Your task to perform on an android device: Open battery settings Image 0: 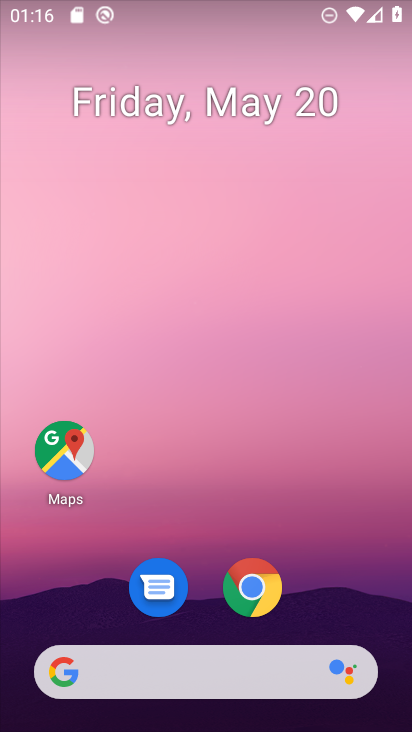
Step 0: drag from (368, 622) to (377, 219)
Your task to perform on an android device: Open battery settings Image 1: 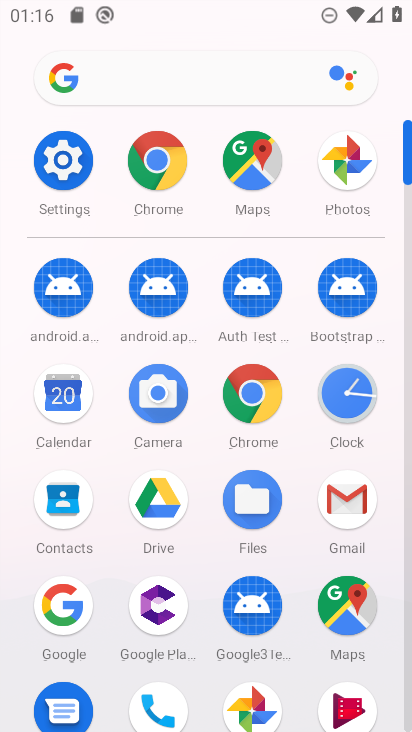
Step 1: click (65, 191)
Your task to perform on an android device: Open battery settings Image 2: 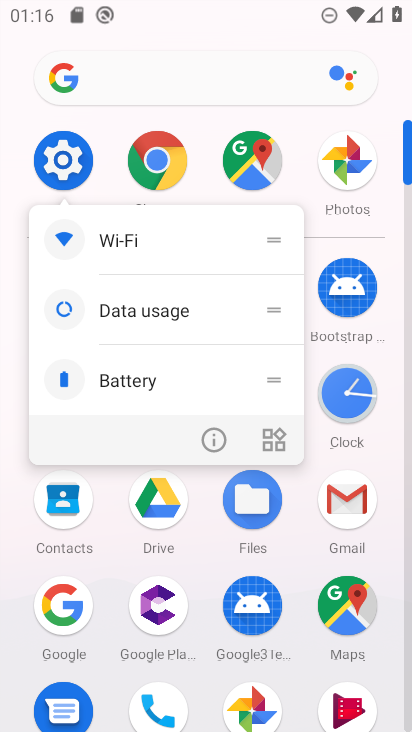
Step 2: click (81, 170)
Your task to perform on an android device: Open battery settings Image 3: 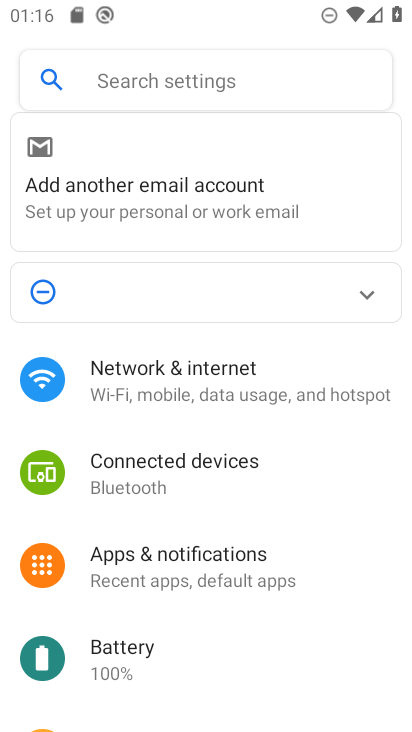
Step 3: drag from (314, 496) to (319, 400)
Your task to perform on an android device: Open battery settings Image 4: 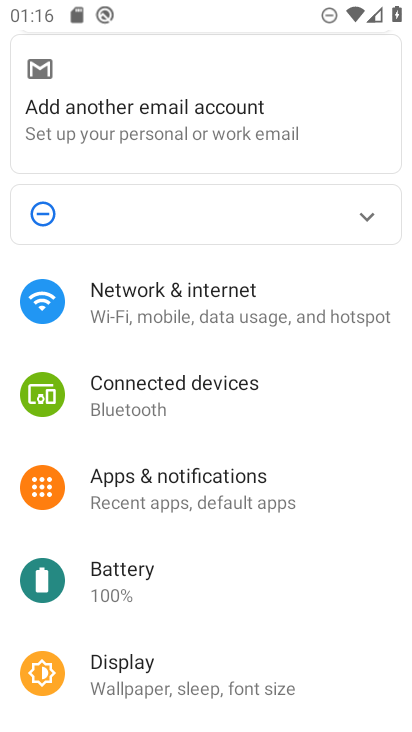
Step 4: drag from (352, 526) to (342, 436)
Your task to perform on an android device: Open battery settings Image 5: 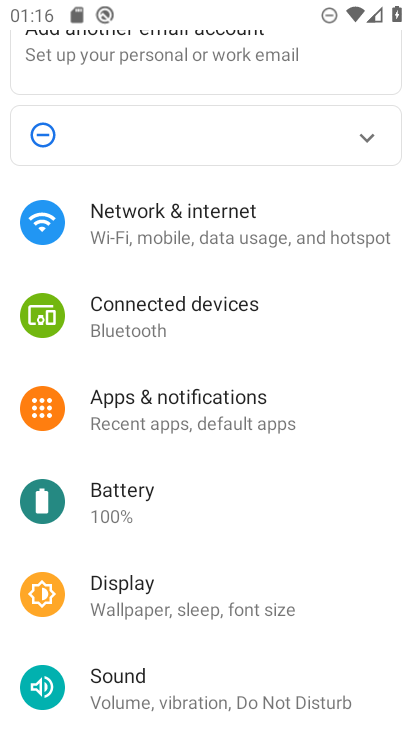
Step 5: drag from (337, 542) to (342, 477)
Your task to perform on an android device: Open battery settings Image 6: 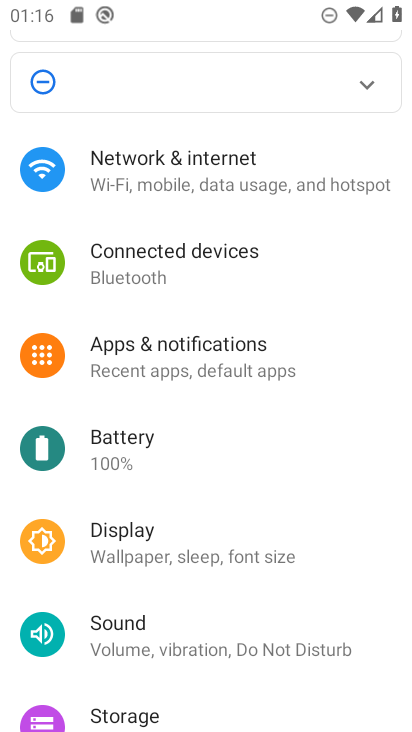
Step 6: drag from (336, 561) to (337, 490)
Your task to perform on an android device: Open battery settings Image 7: 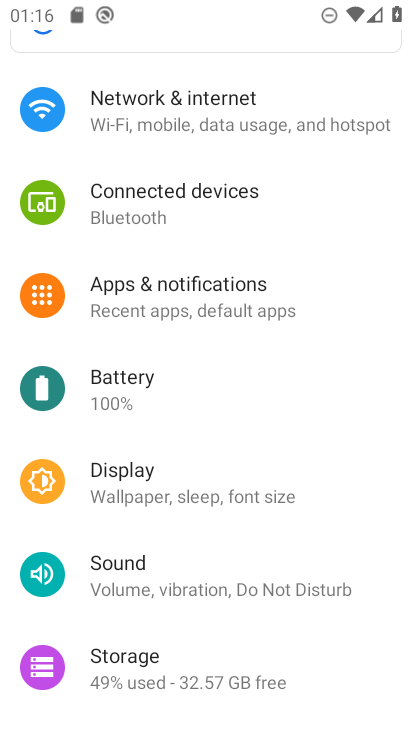
Step 7: drag from (341, 581) to (341, 498)
Your task to perform on an android device: Open battery settings Image 8: 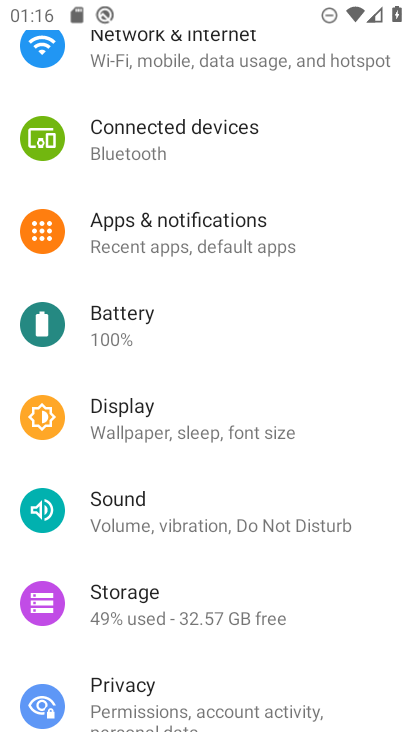
Step 8: click (159, 336)
Your task to perform on an android device: Open battery settings Image 9: 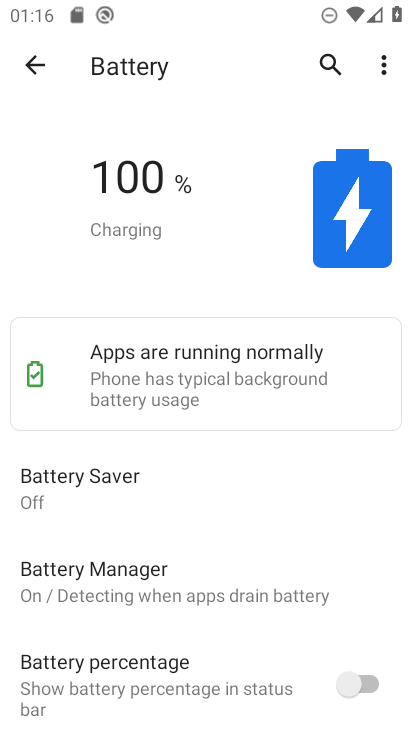
Step 9: task complete